Your task to perform on an android device: Search for hotels in Chicago Image 0: 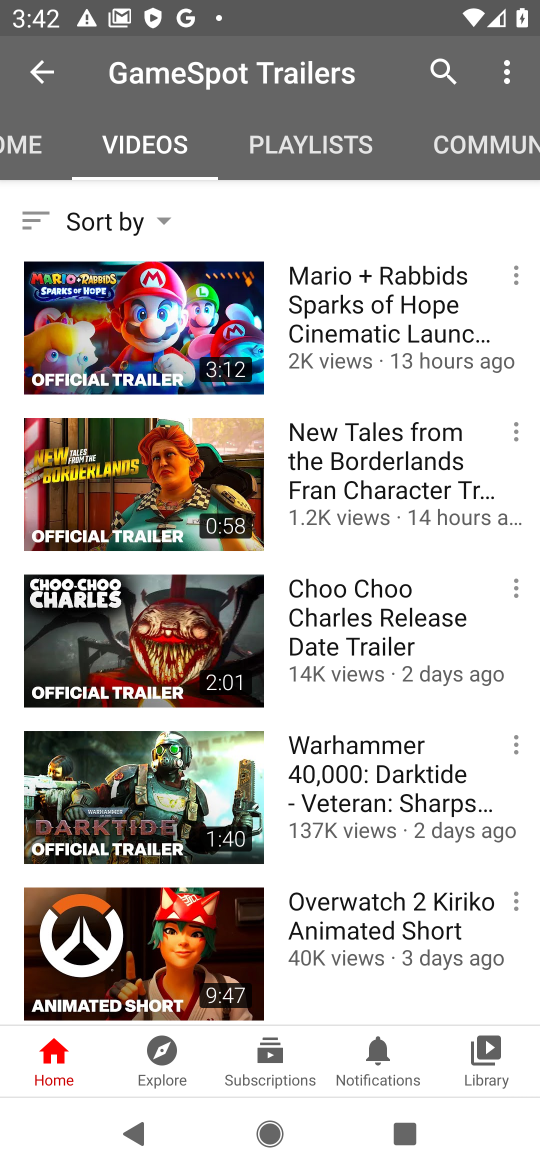
Step 0: press home button
Your task to perform on an android device: Search for hotels in Chicago Image 1: 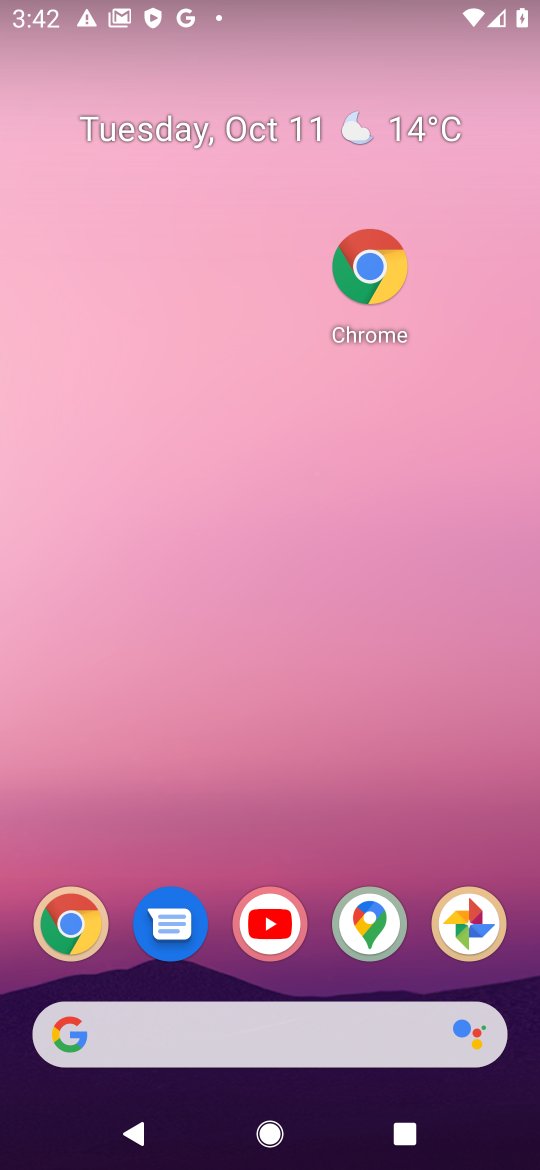
Step 1: click (77, 935)
Your task to perform on an android device: Search for hotels in Chicago Image 2: 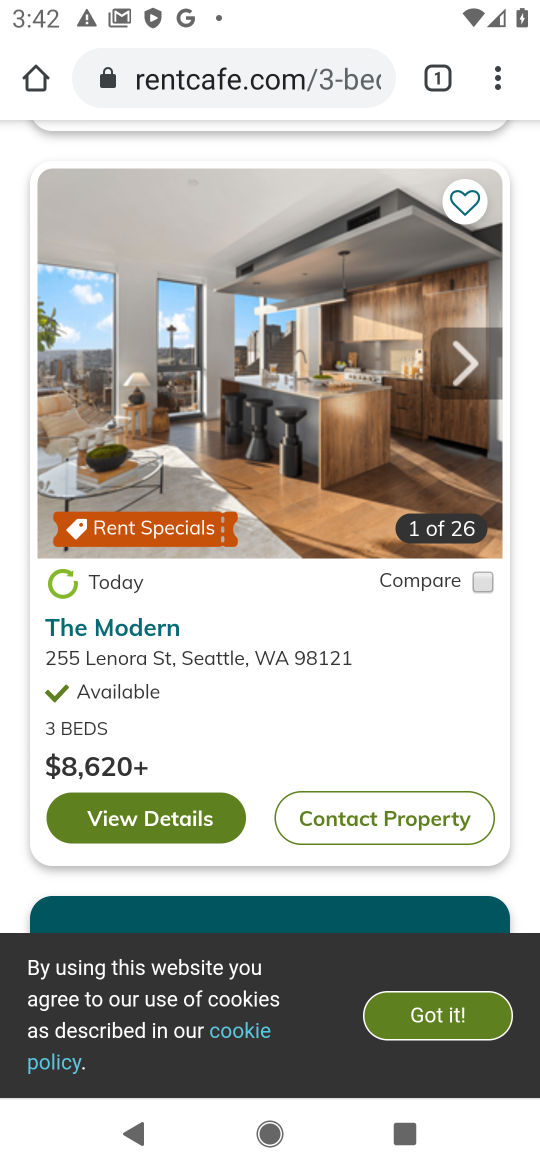
Step 2: click (315, 75)
Your task to perform on an android device: Search for hotels in Chicago Image 3: 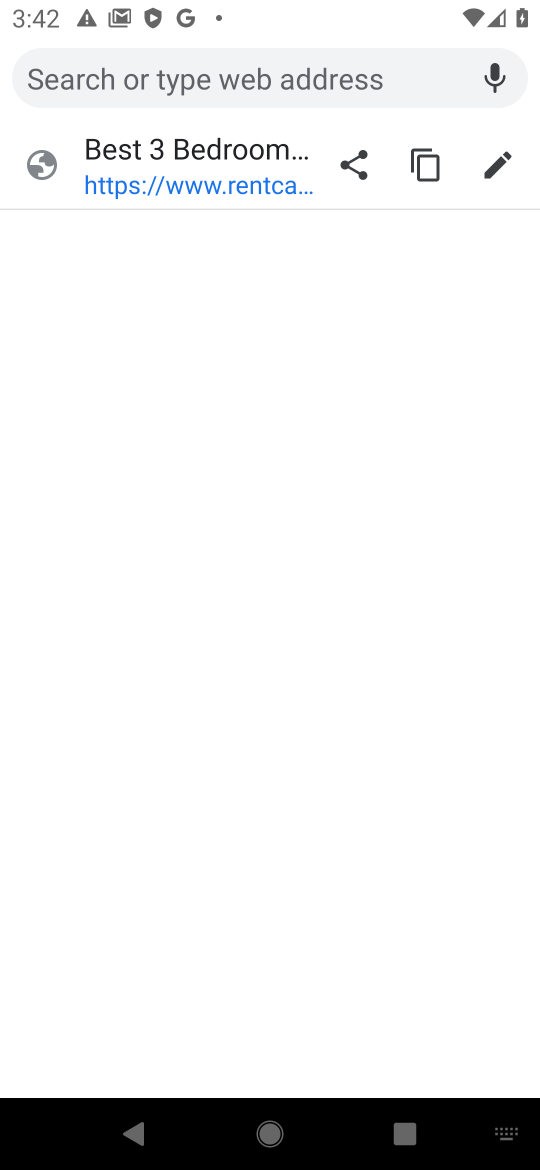
Step 3: type "hotels in chicago"
Your task to perform on an android device: Search for hotels in Chicago Image 4: 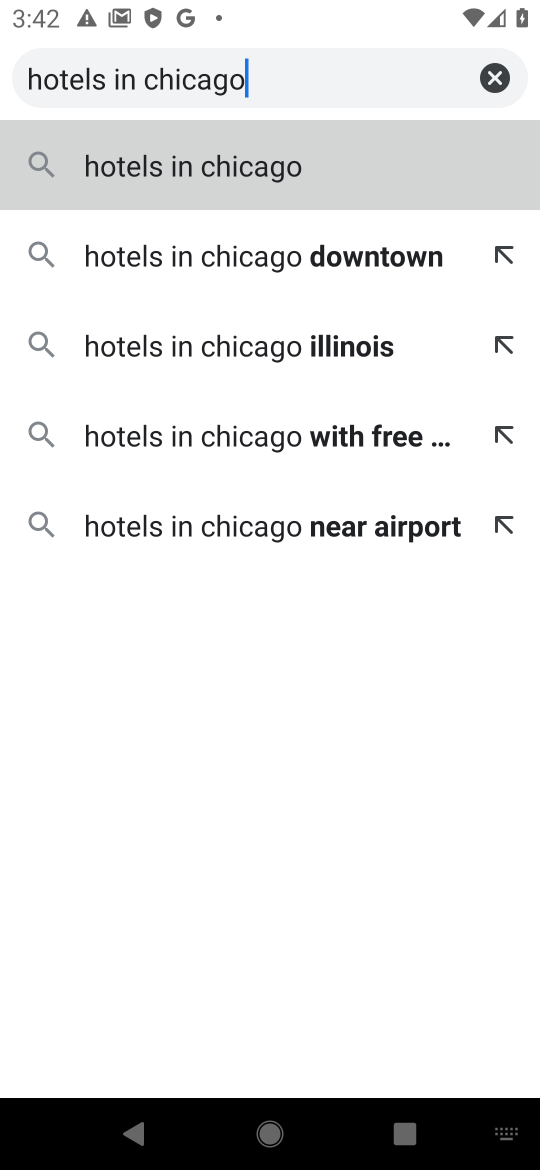
Step 4: click (331, 150)
Your task to perform on an android device: Search for hotels in Chicago Image 5: 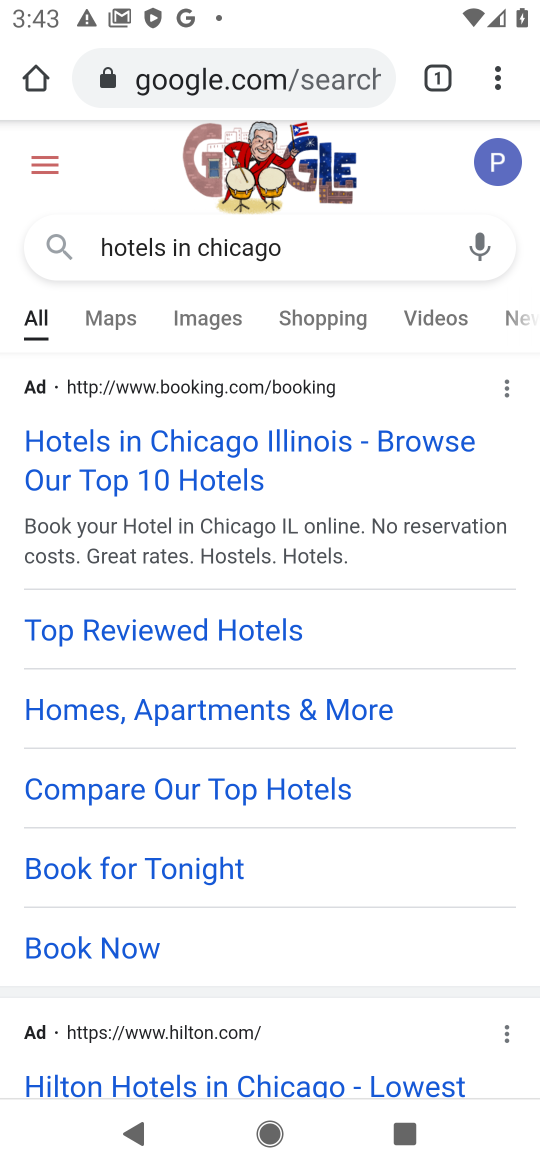
Step 5: task complete